Your task to perform on an android device: turn notification dots on Image 0: 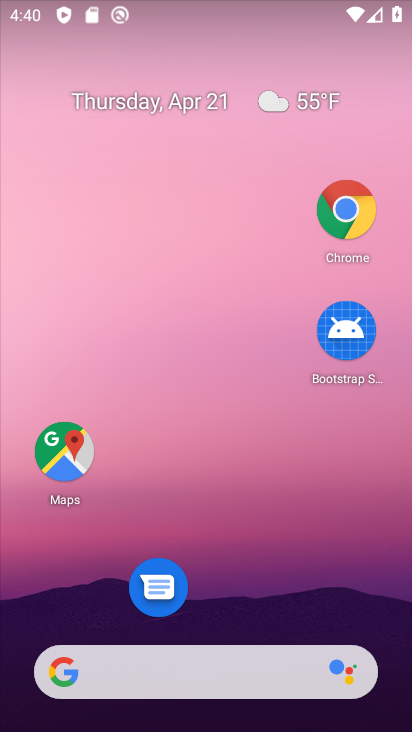
Step 0: drag from (275, 536) to (298, 55)
Your task to perform on an android device: turn notification dots on Image 1: 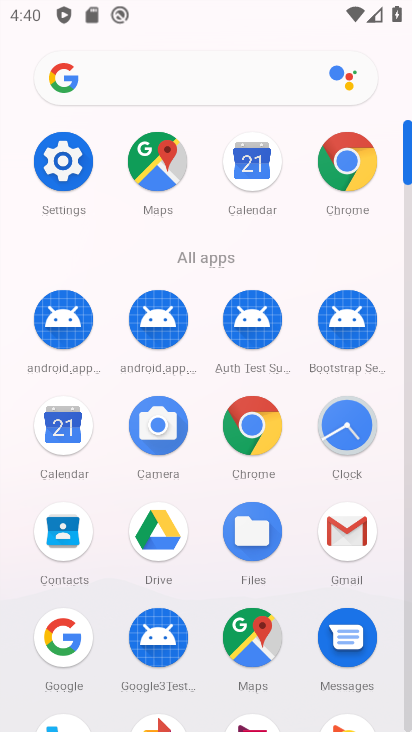
Step 1: click (47, 161)
Your task to perform on an android device: turn notification dots on Image 2: 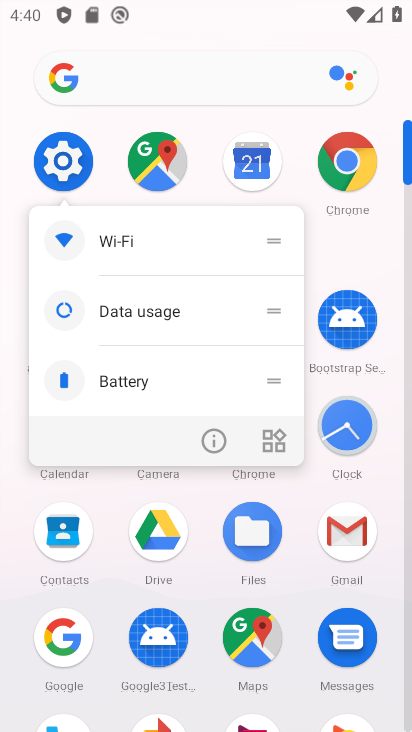
Step 2: click (48, 159)
Your task to perform on an android device: turn notification dots on Image 3: 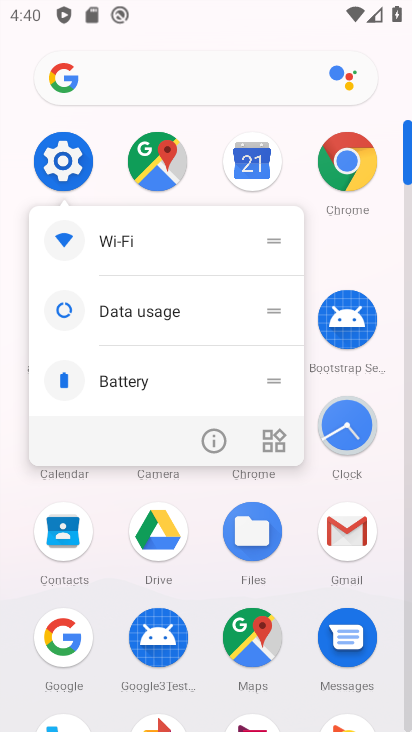
Step 3: click (62, 152)
Your task to perform on an android device: turn notification dots on Image 4: 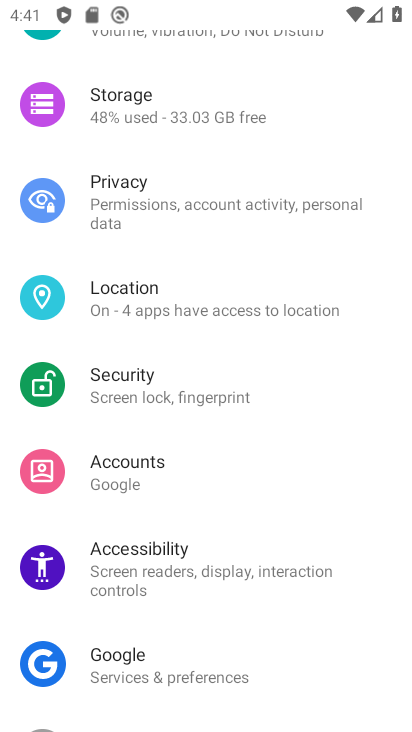
Step 4: drag from (267, 590) to (269, 687)
Your task to perform on an android device: turn notification dots on Image 5: 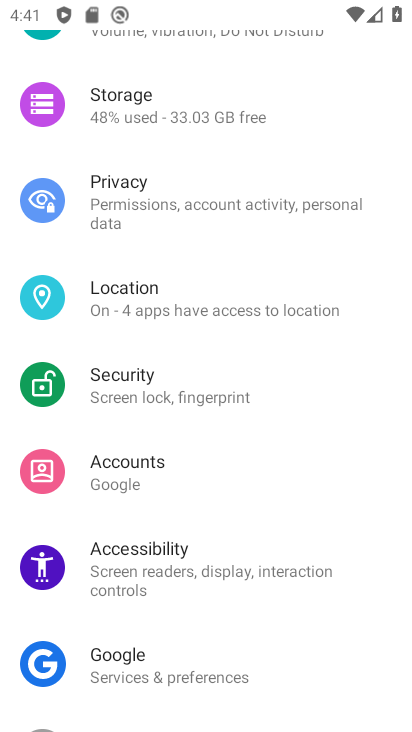
Step 5: drag from (370, 91) to (355, 575)
Your task to perform on an android device: turn notification dots on Image 6: 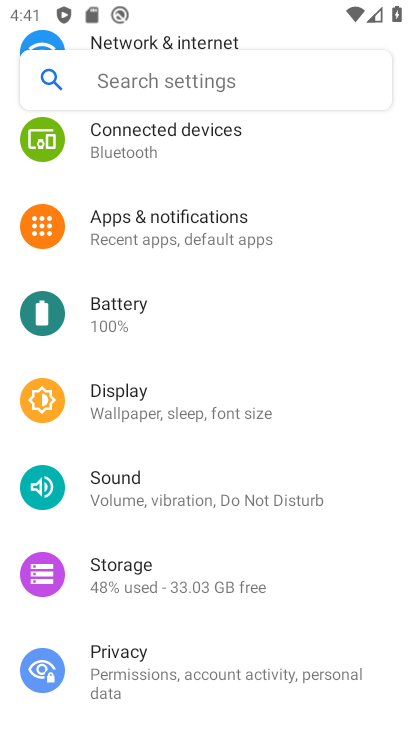
Step 6: click (166, 220)
Your task to perform on an android device: turn notification dots on Image 7: 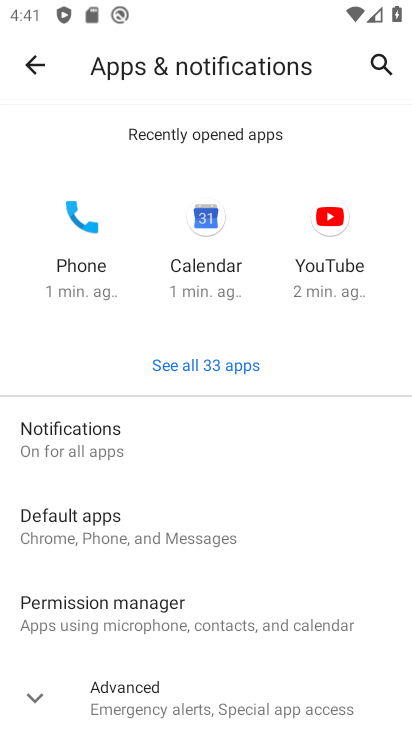
Step 7: click (86, 434)
Your task to perform on an android device: turn notification dots on Image 8: 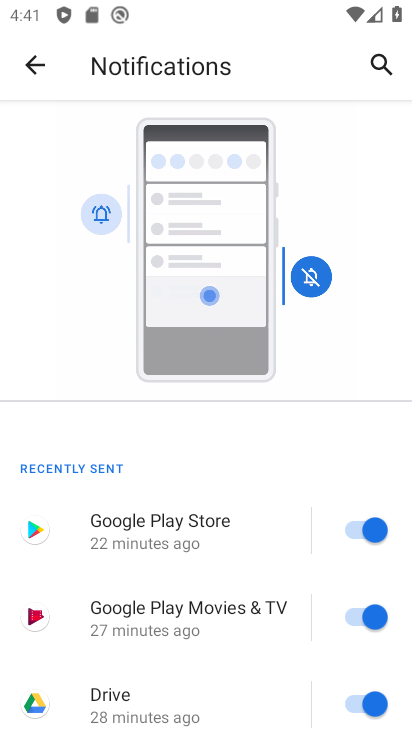
Step 8: drag from (295, 477) to (359, 84)
Your task to perform on an android device: turn notification dots on Image 9: 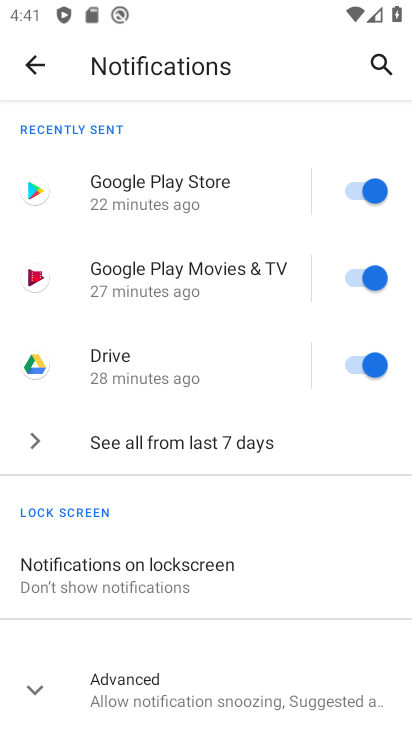
Step 9: click (224, 695)
Your task to perform on an android device: turn notification dots on Image 10: 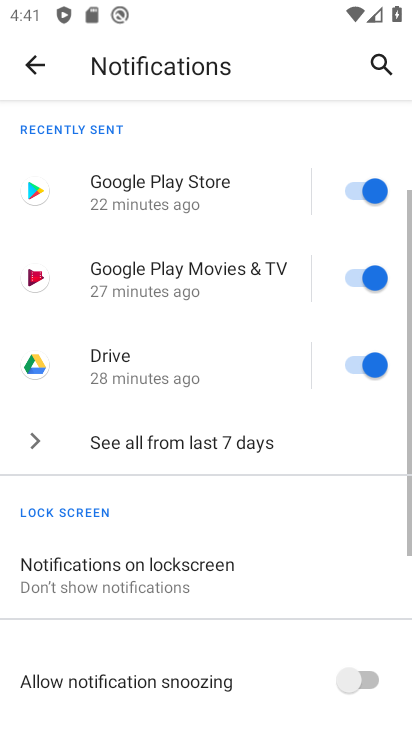
Step 10: task complete